Your task to perform on an android device: Open Chrome and go to settings Image 0: 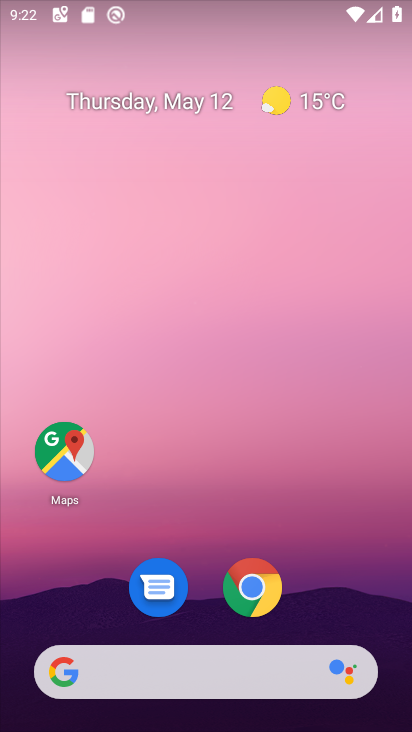
Step 0: drag from (365, 592) to (365, 418)
Your task to perform on an android device: Open Chrome and go to settings Image 1: 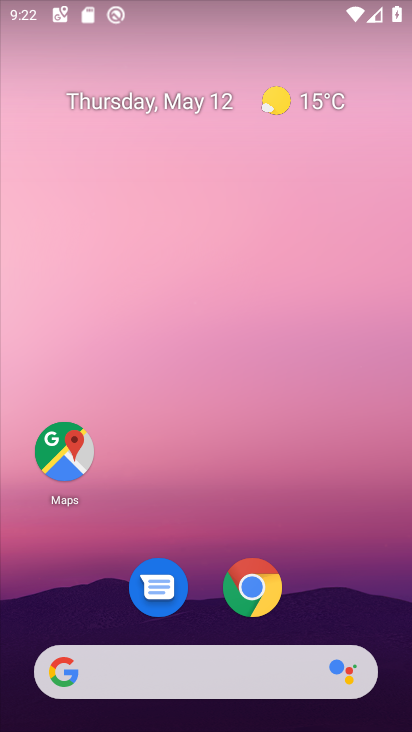
Step 1: drag from (343, 446) to (269, 144)
Your task to perform on an android device: Open Chrome and go to settings Image 2: 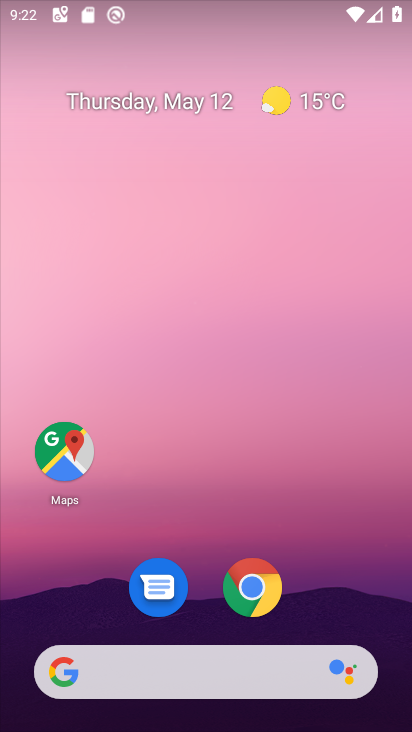
Step 2: drag from (372, 564) to (262, 49)
Your task to perform on an android device: Open Chrome and go to settings Image 3: 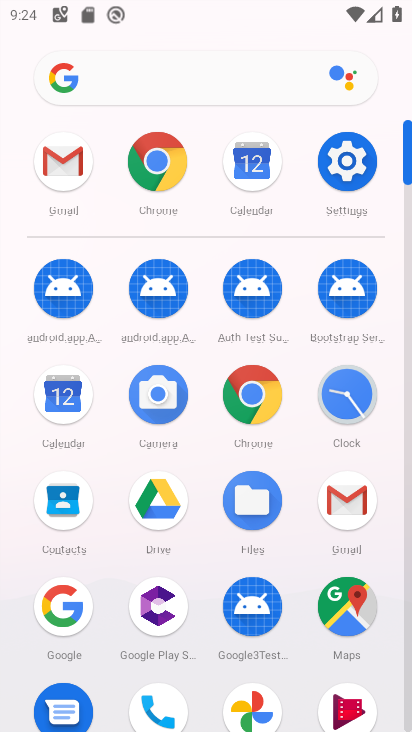
Step 3: click (149, 167)
Your task to perform on an android device: Open Chrome and go to settings Image 4: 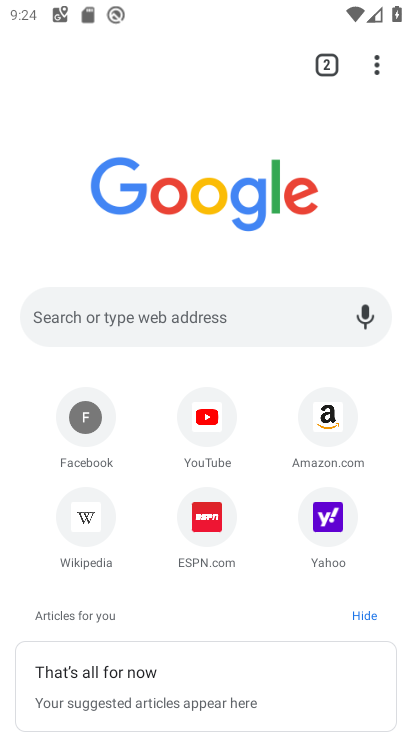
Step 4: click (378, 64)
Your task to perform on an android device: Open Chrome and go to settings Image 5: 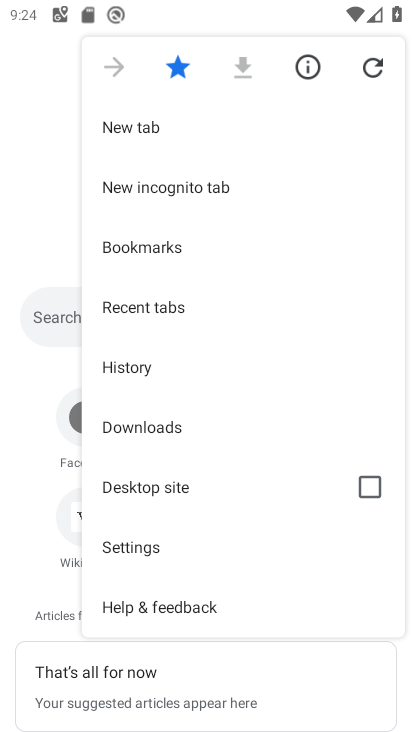
Step 5: click (183, 545)
Your task to perform on an android device: Open Chrome and go to settings Image 6: 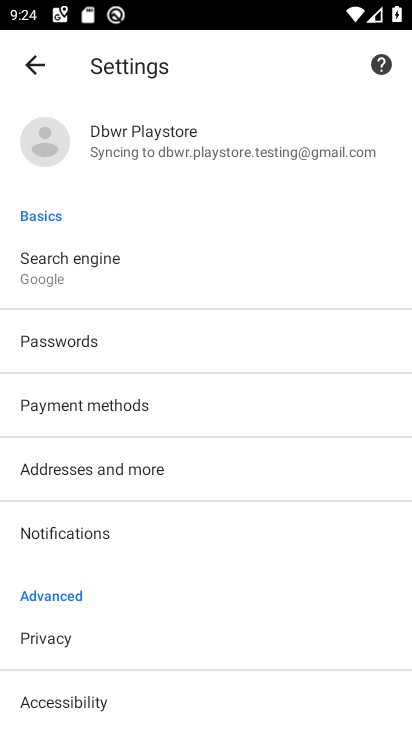
Step 6: task complete